Your task to perform on an android device: turn on javascript in the chrome app Image 0: 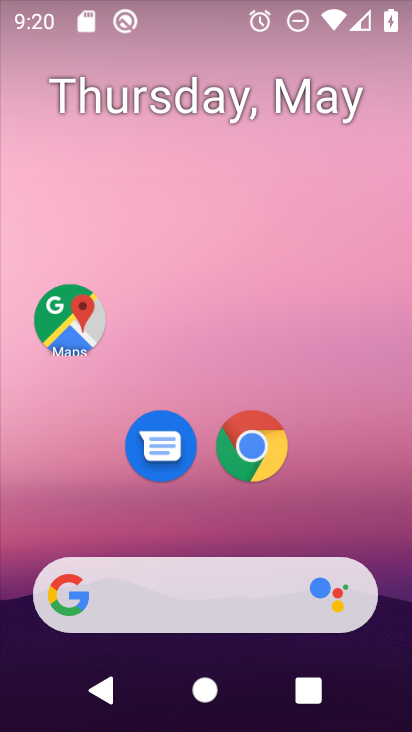
Step 0: drag from (365, 529) to (370, 134)
Your task to perform on an android device: turn on javascript in the chrome app Image 1: 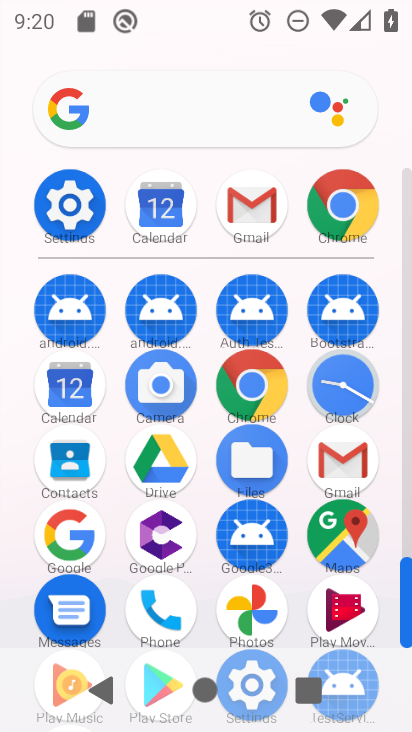
Step 1: drag from (212, 584) to (181, 280)
Your task to perform on an android device: turn on javascript in the chrome app Image 2: 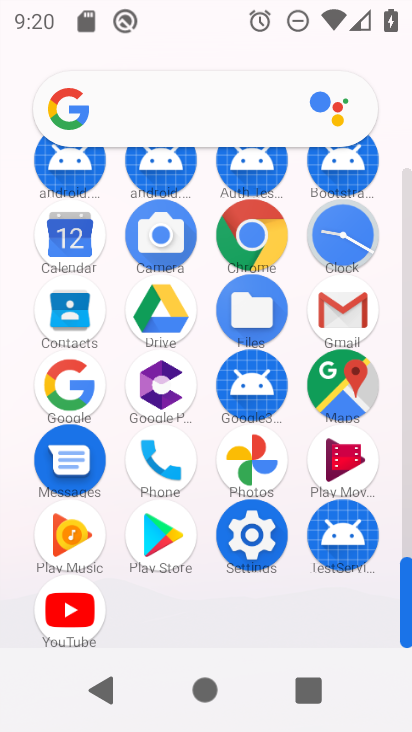
Step 2: click (281, 240)
Your task to perform on an android device: turn on javascript in the chrome app Image 3: 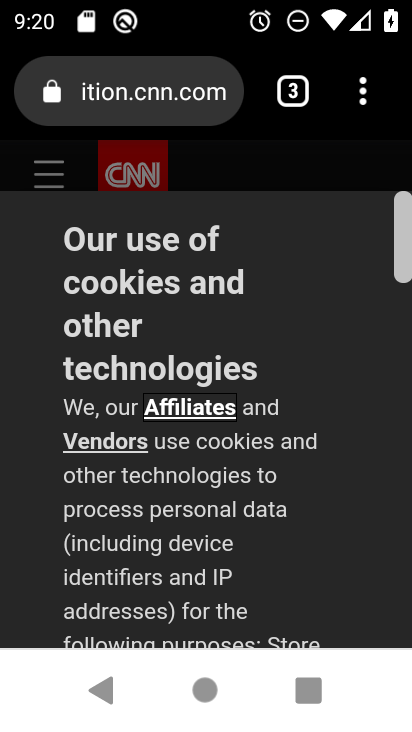
Step 3: drag from (365, 98) to (184, 484)
Your task to perform on an android device: turn on javascript in the chrome app Image 4: 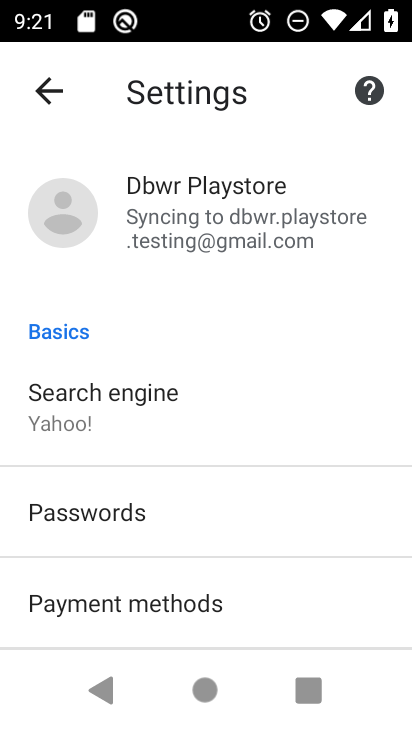
Step 4: drag from (217, 577) to (246, 231)
Your task to perform on an android device: turn on javascript in the chrome app Image 5: 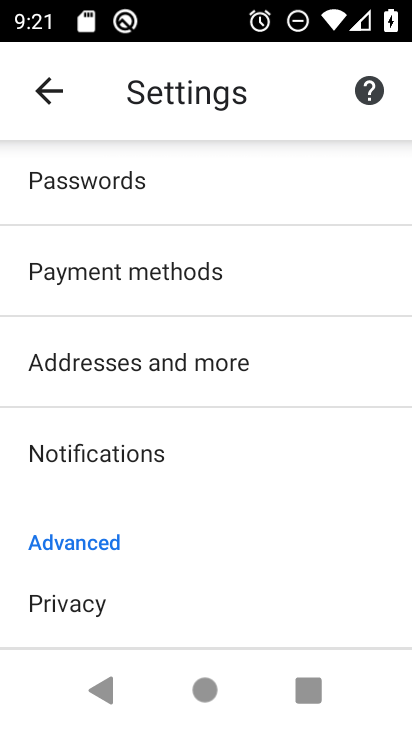
Step 5: drag from (285, 547) to (285, 234)
Your task to perform on an android device: turn on javascript in the chrome app Image 6: 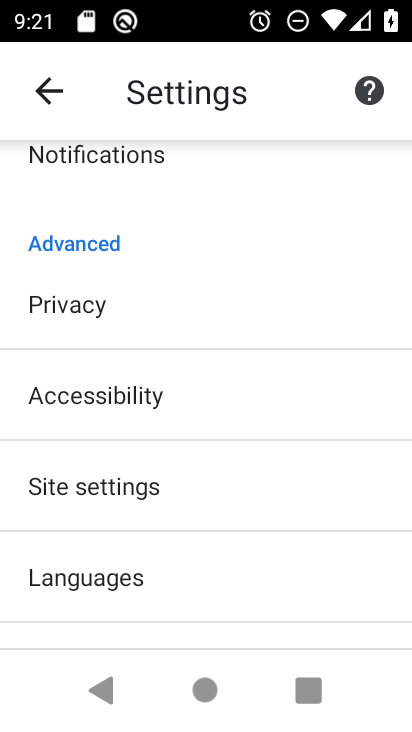
Step 6: drag from (258, 583) to (268, 386)
Your task to perform on an android device: turn on javascript in the chrome app Image 7: 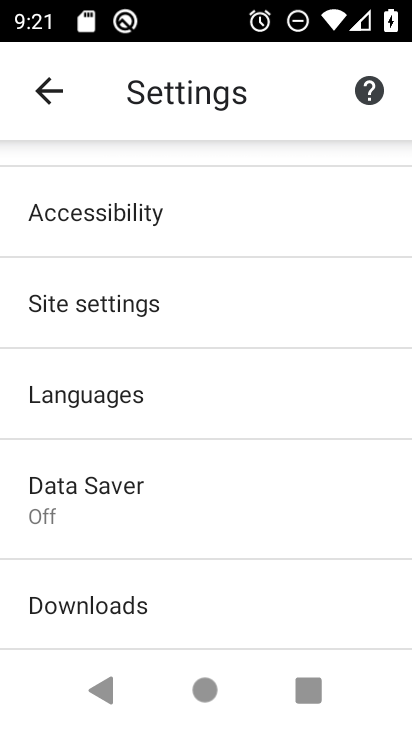
Step 7: click (193, 302)
Your task to perform on an android device: turn on javascript in the chrome app Image 8: 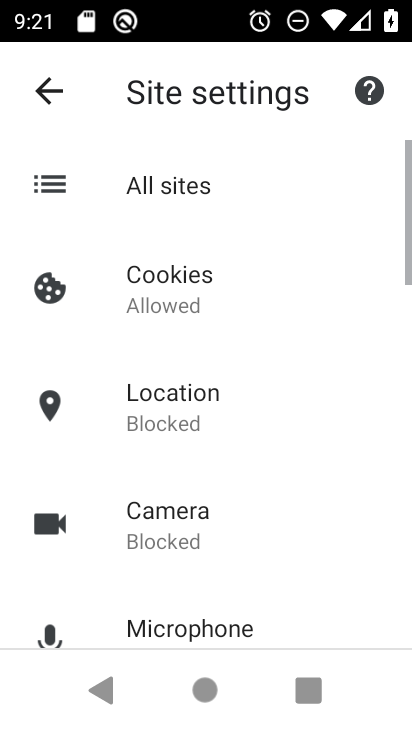
Step 8: drag from (251, 615) to (271, 249)
Your task to perform on an android device: turn on javascript in the chrome app Image 9: 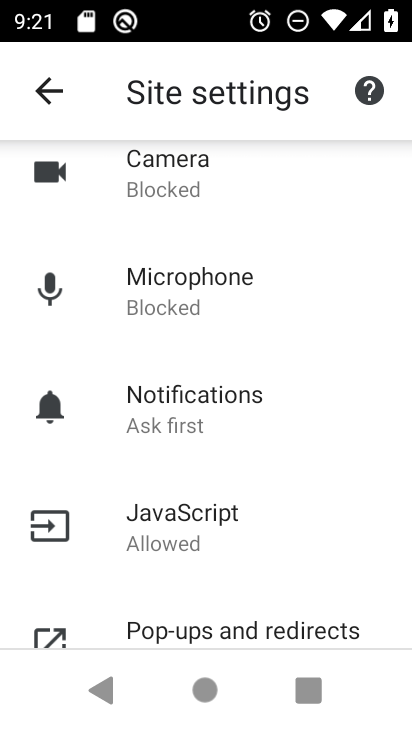
Step 9: click (237, 523)
Your task to perform on an android device: turn on javascript in the chrome app Image 10: 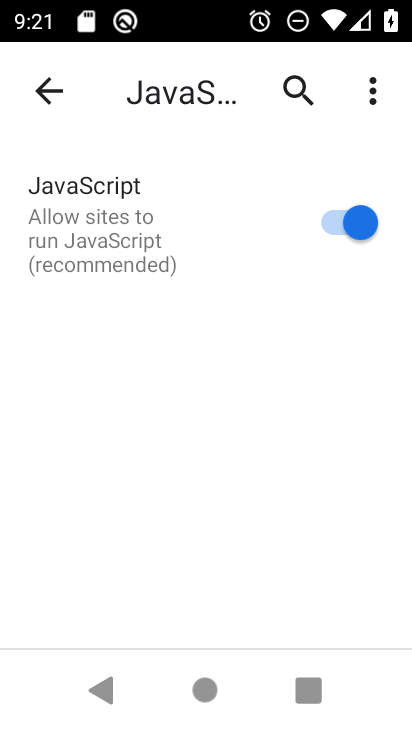
Step 10: task complete